Your task to perform on an android device: check the backup settings in the google photos Image 0: 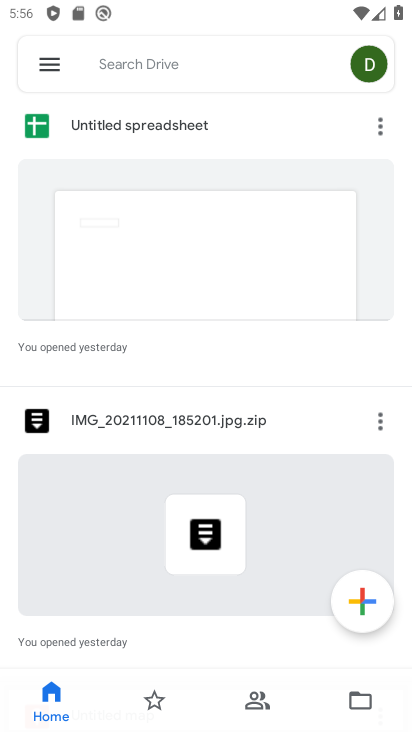
Step 0: press home button
Your task to perform on an android device: check the backup settings in the google photos Image 1: 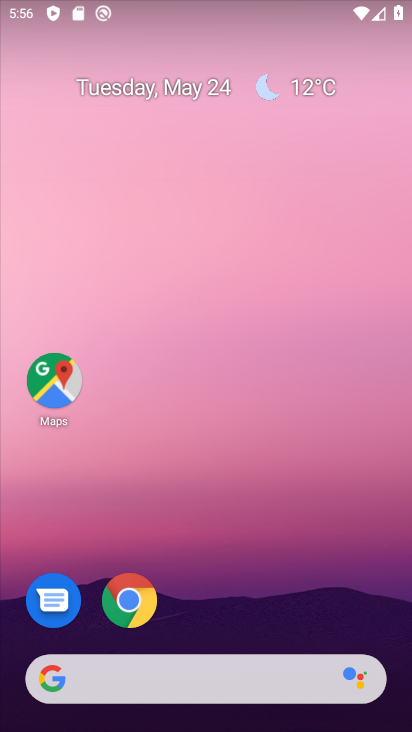
Step 1: drag from (177, 684) to (215, 30)
Your task to perform on an android device: check the backup settings in the google photos Image 2: 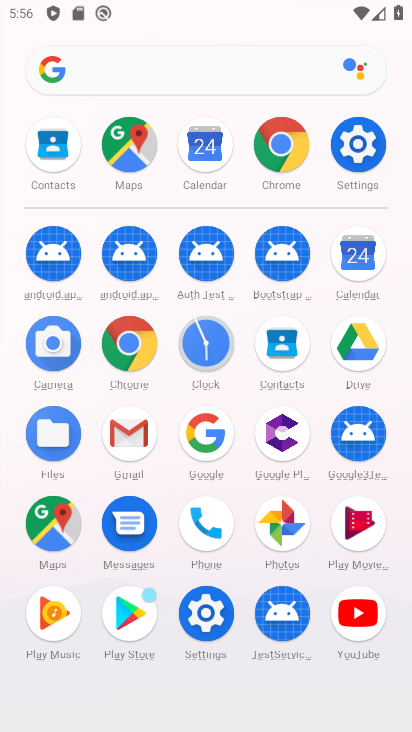
Step 2: click (300, 529)
Your task to perform on an android device: check the backup settings in the google photos Image 3: 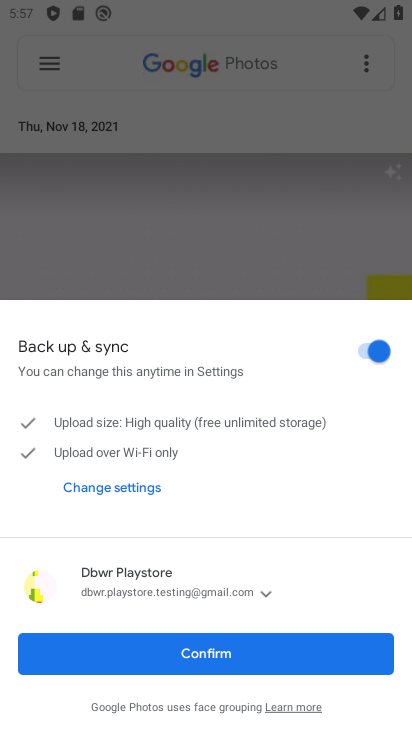
Step 3: click (185, 665)
Your task to perform on an android device: check the backup settings in the google photos Image 4: 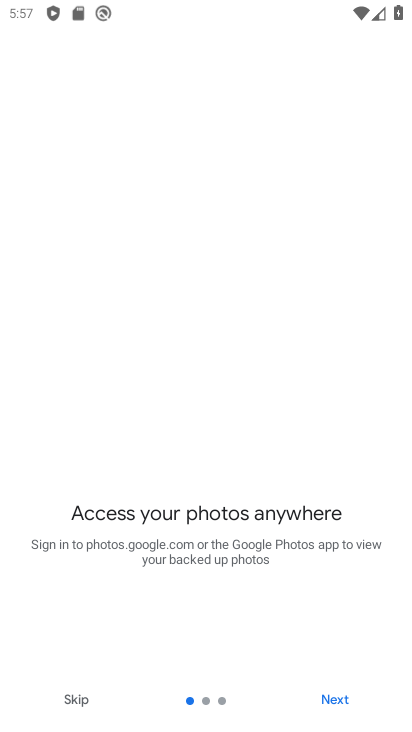
Step 4: click (327, 700)
Your task to perform on an android device: check the backup settings in the google photos Image 5: 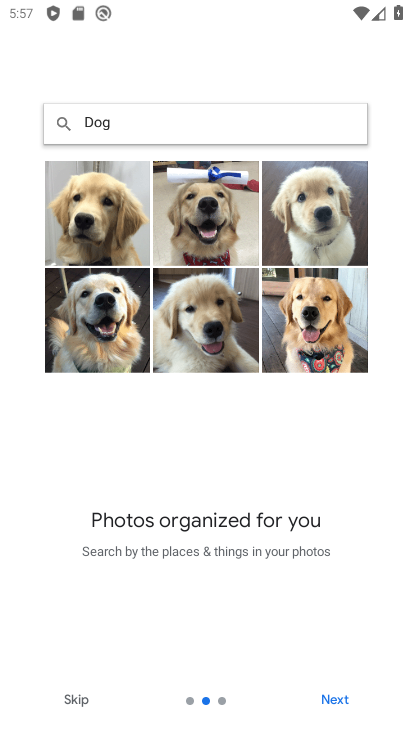
Step 5: click (327, 700)
Your task to perform on an android device: check the backup settings in the google photos Image 6: 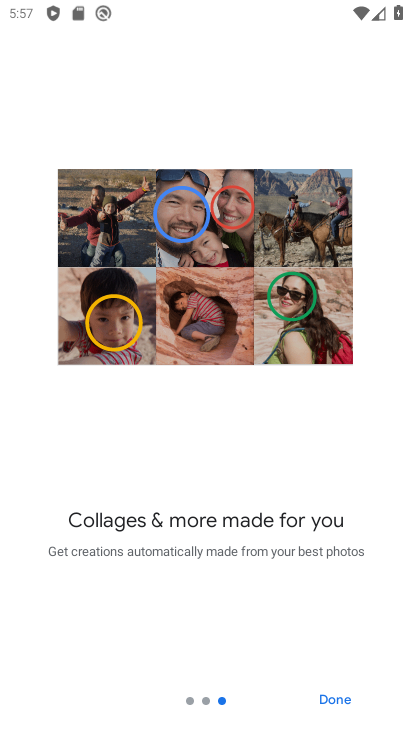
Step 6: click (331, 701)
Your task to perform on an android device: check the backup settings in the google photos Image 7: 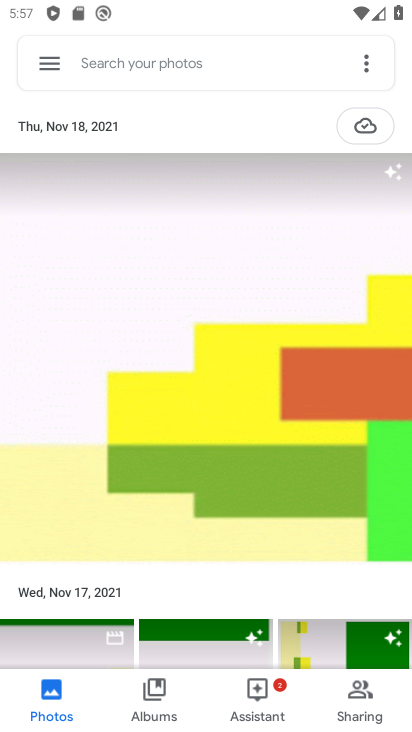
Step 7: click (47, 69)
Your task to perform on an android device: check the backup settings in the google photos Image 8: 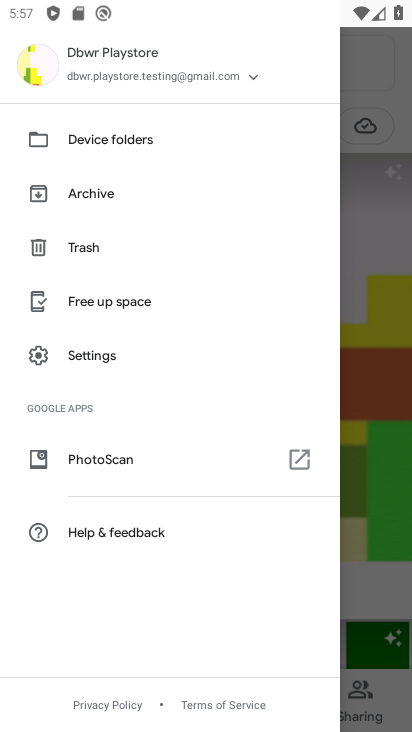
Step 8: click (101, 358)
Your task to perform on an android device: check the backup settings in the google photos Image 9: 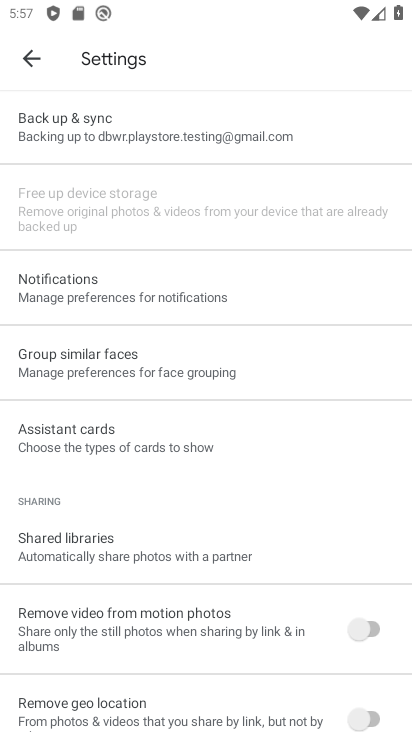
Step 9: click (171, 143)
Your task to perform on an android device: check the backup settings in the google photos Image 10: 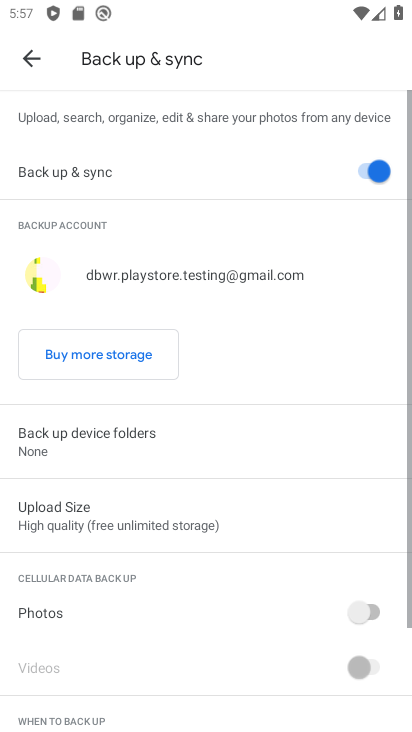
Step 10: task complete